Your task to perform on an android device: change notification settings in the gmail app Image 0: 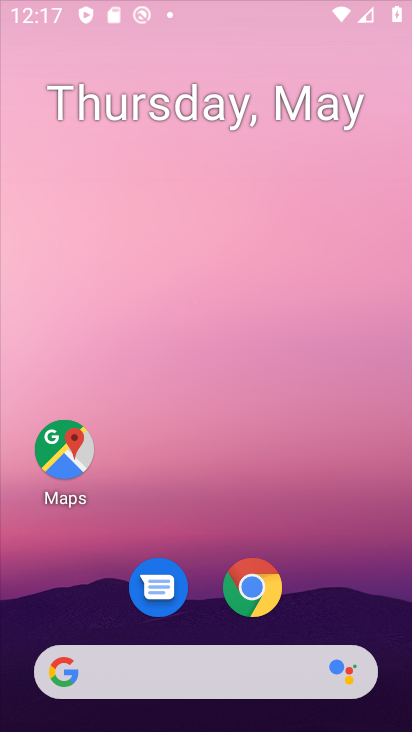
Step 0: drag from (305, 672) to (322, 66)
Your task to perform on an android device: change notification settings in the gmail app Image 1: 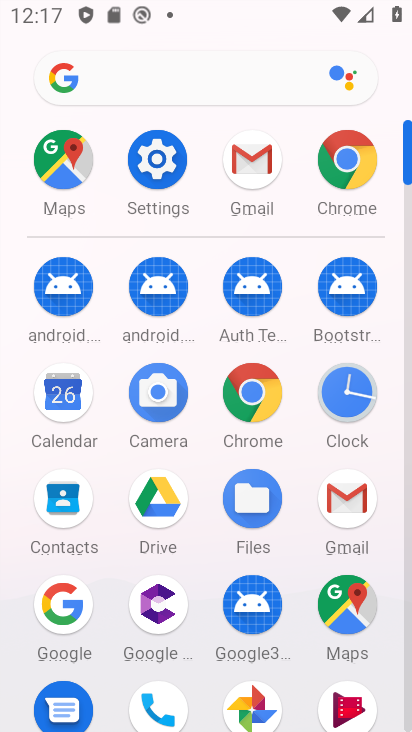
Step 1: click (356, 481)
Your task to perform on an android device: change notification settings in the gmail app Image 2: 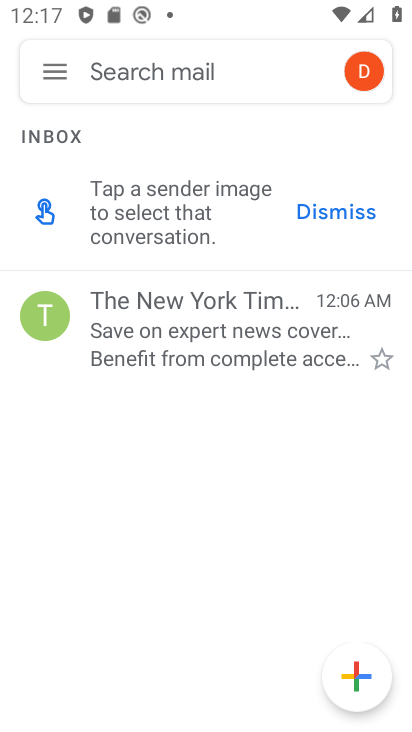
Step 2: click (57, 68)
Your task to perform on an android device: change notification settings in the gmail app Image 3: 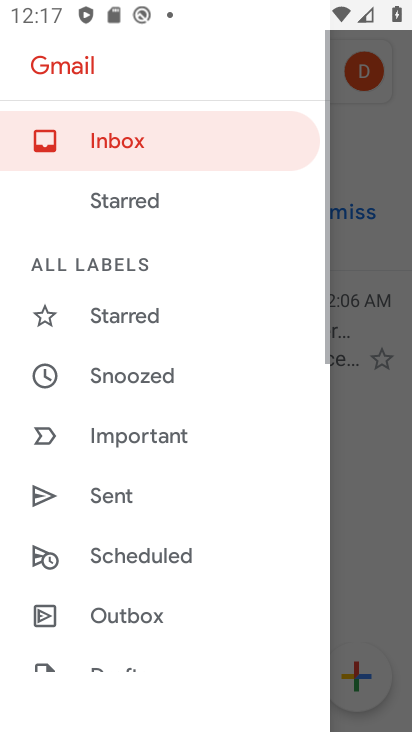
Step 3: drag from (129, 597) to (131, 18)
Your task to perform on an android device: change notification settings in the gmail app Image 4: 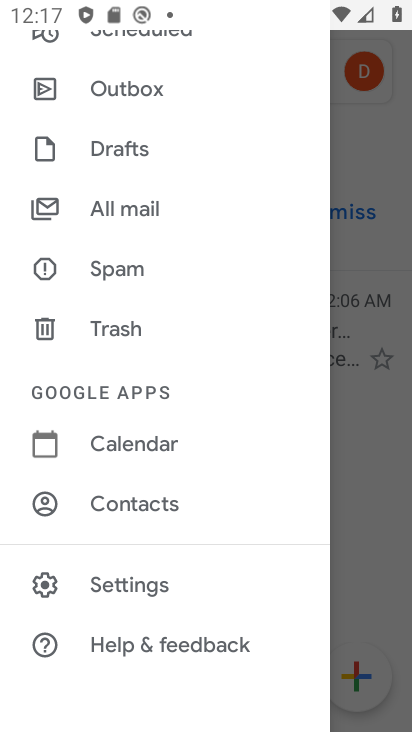
Step 4: click (84, 565)
Your task to perform on an android device: change notification settings in the gmail app Image 5: 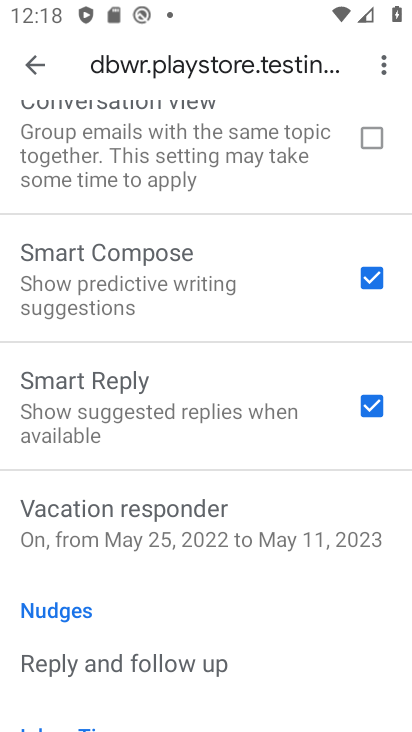
Step 5: drag from (157, 639) to (209, 24)
Your task to perform on an android device: change notification settings in the gmail app Image 6: 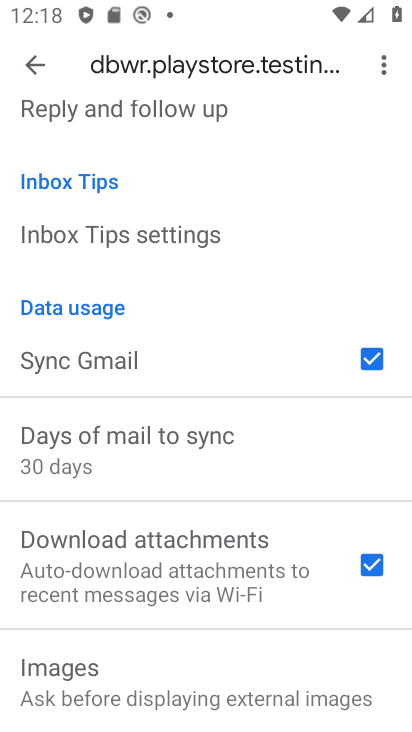
Step 6: drag from (212, 597) to (248, 150)
Your task to perform on an android device: change notification settings in the gmail app Image 7: 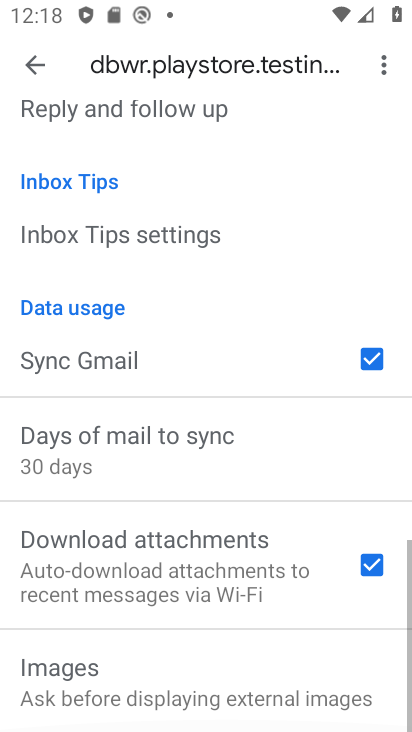
Step 7: drag from (267, 164) to (369, 681)
Your task to perform on an android device: change notification settings in the gmail app Image 8: 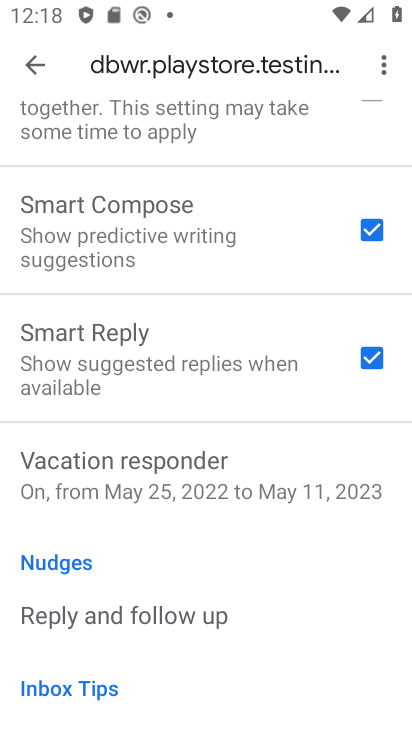
Step 8: drag from (196, 381) to (166, 723)
Your task to perform on an android device: change notification settings in the gmail app Image 9: 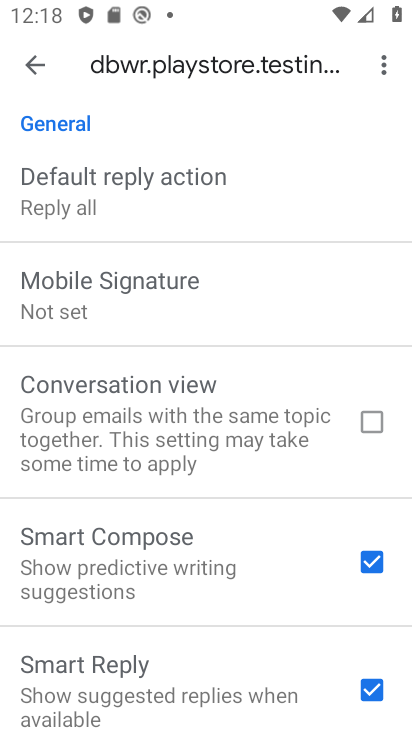
Step 9: drag from (150, 397) to (146, 727)
Your task to perform on an android device: change notification settings in the gmail app Image 10: 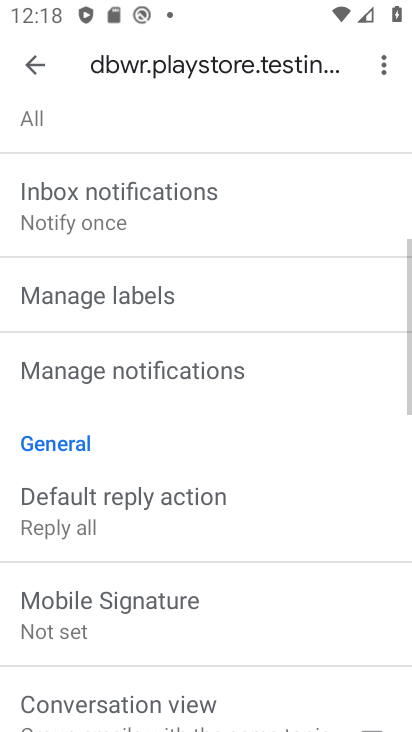
Step 10: click (177, 362)
Your task to perform on an android device: change notification settings in the gmail app Image 11: 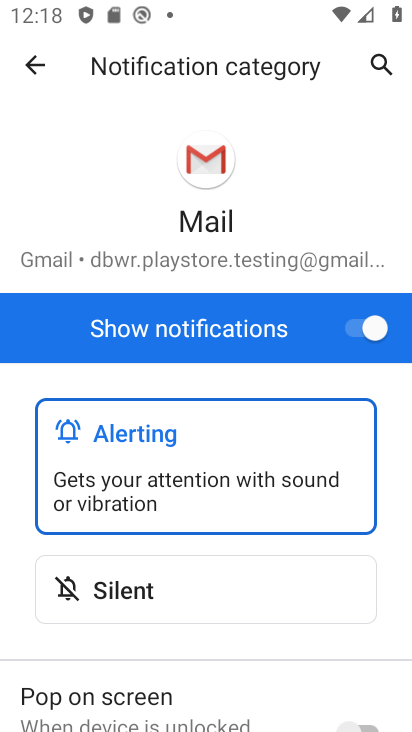
Step 11: task complete